Your task to perform on an android device: Show me the alarms in the clock app Image 0: 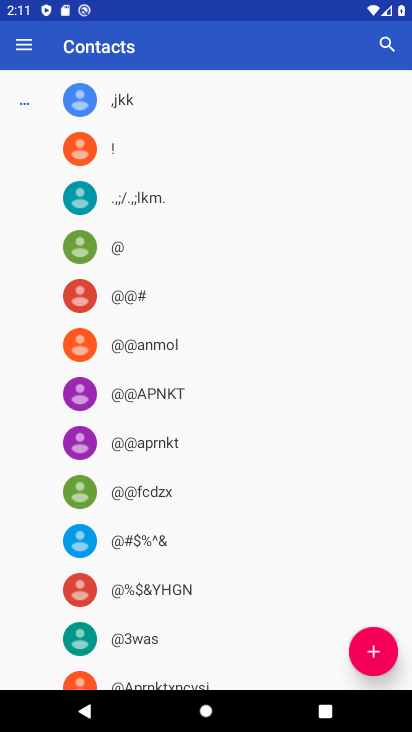
Step 0: press home button
Your task to perform on an android device: Show me the alarms in the clock app Image 1: 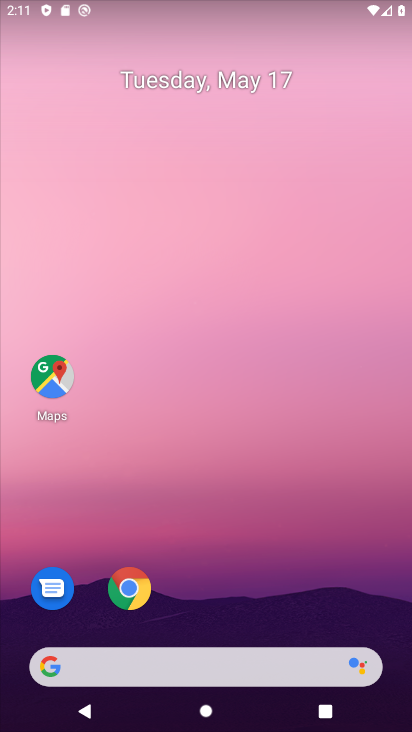
Step 1: drag from (279, 551) to (158, 89)
Your task to perform on an android device: Show me the alarms in the clock app Image 2: 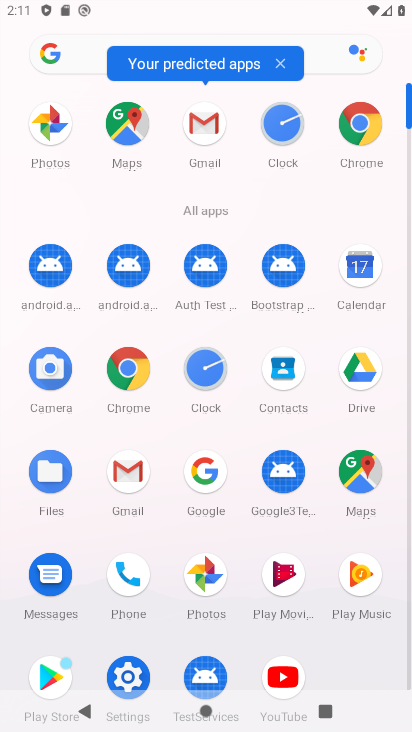
Step 2: click (285, 134)
Your task to perform on an android device: Show me the alarms in the clock app Image 3: 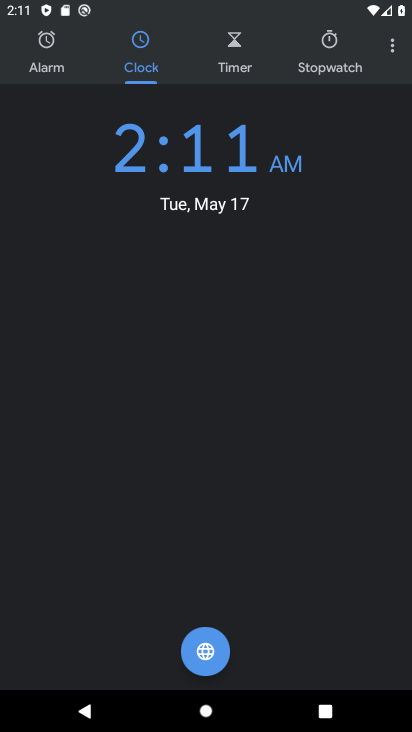
Step 3: click (53, 53)
Your task to perform on an android device: Show me the alarms in the clock app Image 4: 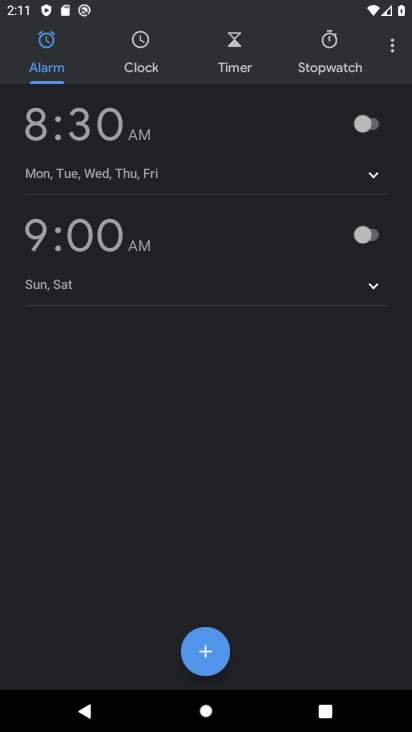
Step 4: task complete